Your task to perform on an android device: toggle show notifications on the lock screen Image 0: 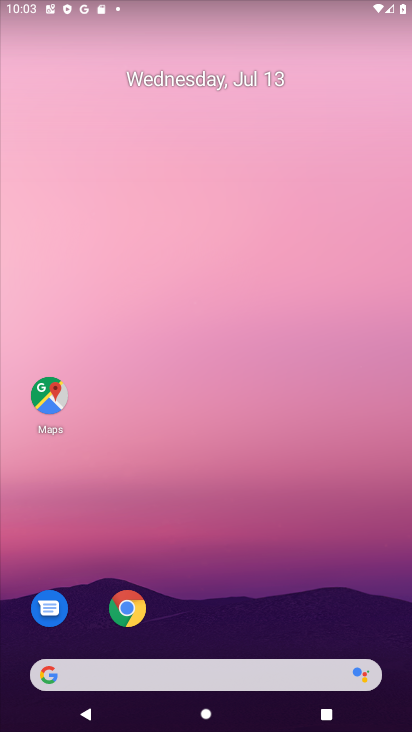
Step 0: drag from (182, 668) to (252, 132)
Your task to perform on an android device: toggle show notifications on the lock screen Image 1: 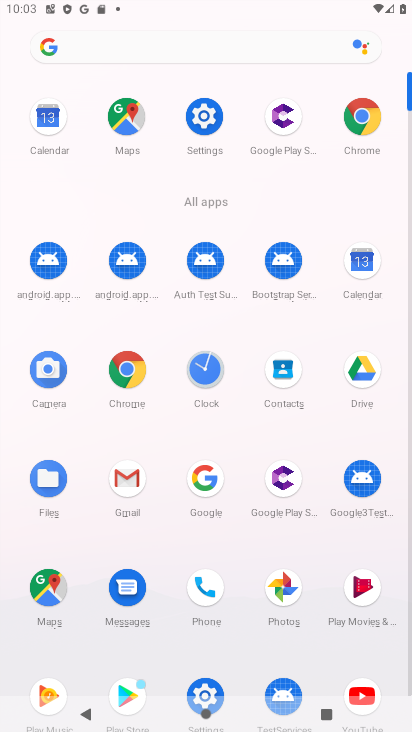
Step 1: click (203, 118)
Your task to perform on an android device: toggle show notifications on the lock screen Image 2: 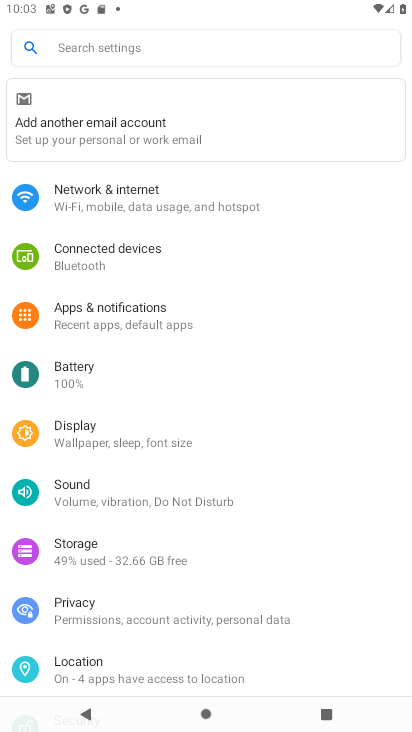
Step 2: click (130, 315)
Your task to perform on an android device: toggle show notifications on the lock screen Image 3: 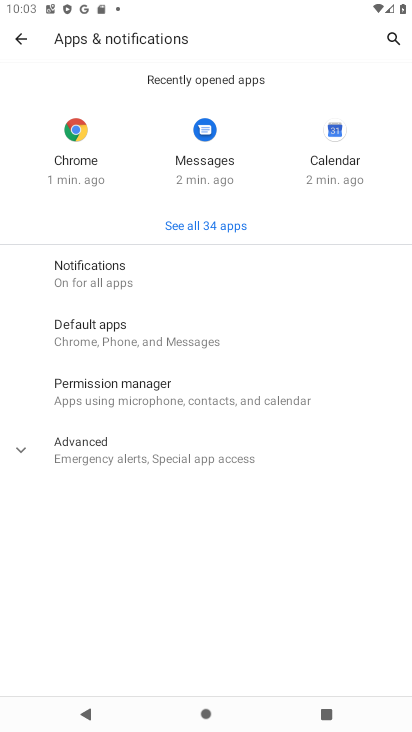
Step 3: click (95, 272)
Your task to perform on an android device: toggle show notifications on the lock screen Image 4: 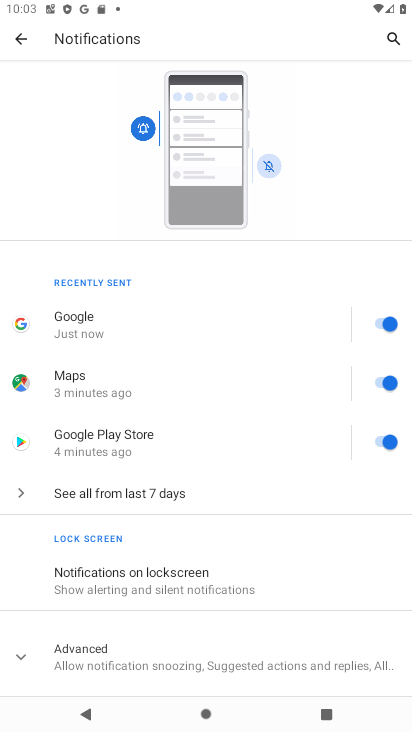
Step 4: click (95, 272)
Your task to perform on an android device: toggle show notifications on the lock screen Image 5: 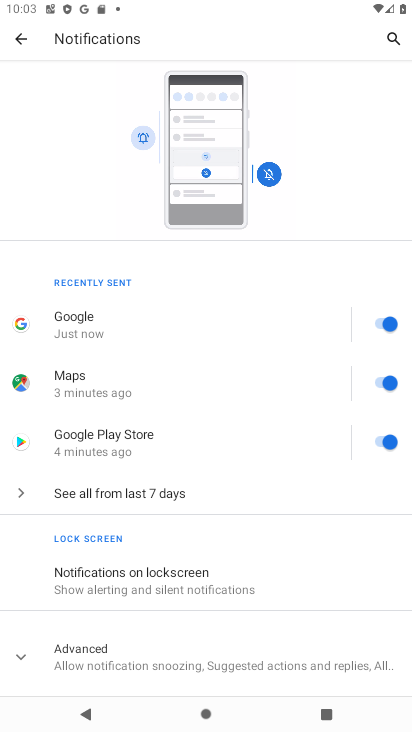
Step 5: click (129, 572)
Your task to perform on an android device: toggle show notifications on the lock screen Image 6: 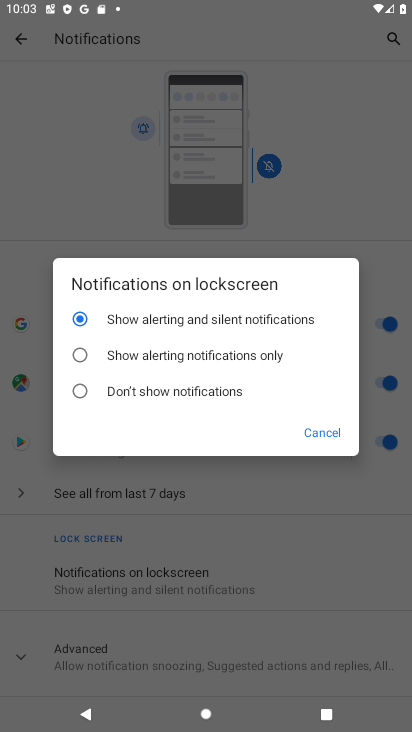
Step 6: click (83, 398)
Your task to perform on an android device: toggle show notifications on the lock screen Image 7: 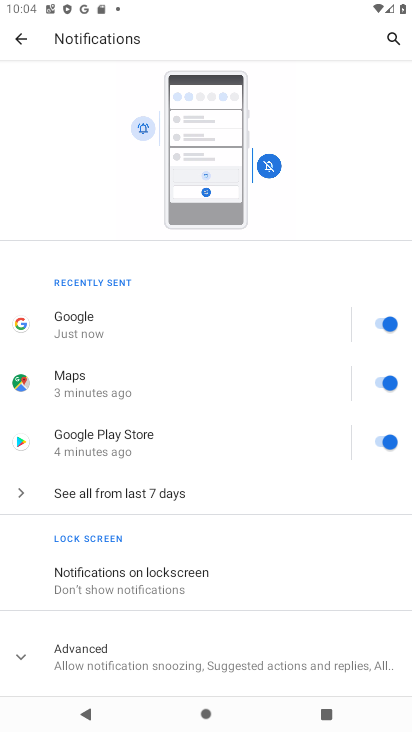
Step 7: task complete